Your task to perform on an android device: Show me recent news Image 0: 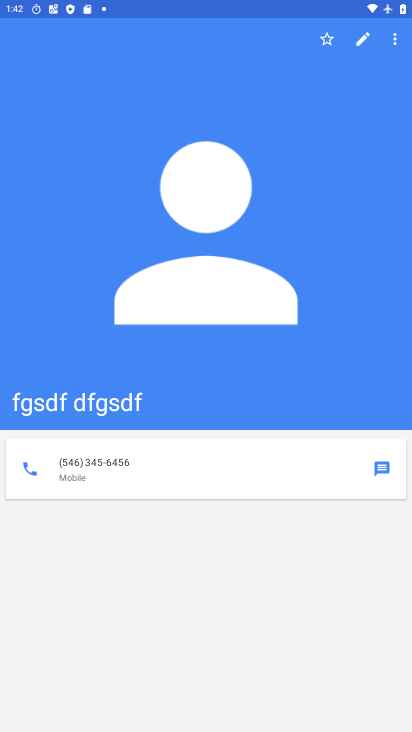
Step 0: press home button
Your task to perform on an android device: Show me recent news Image 1: 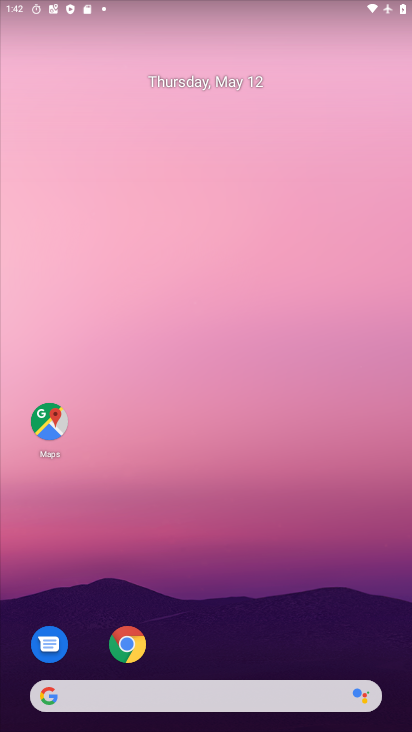
Step 1: drag from (232, 615) to (222, 51)
Your task to perform on an android device: Show me recent news Image 2: 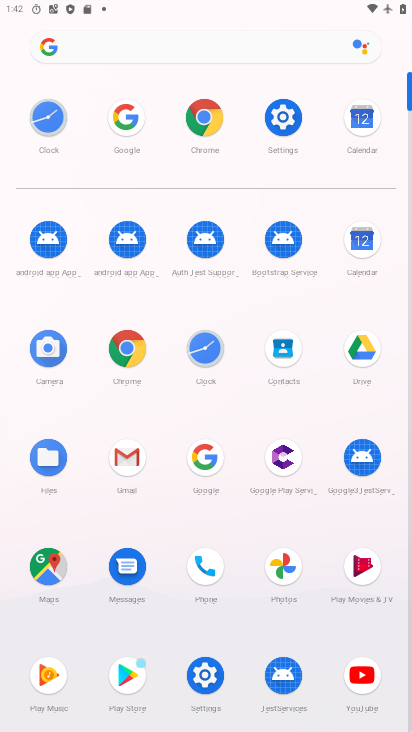
Step 2: click (201, 459)
Your task to perform on an android device: Show me recent news Image 3: 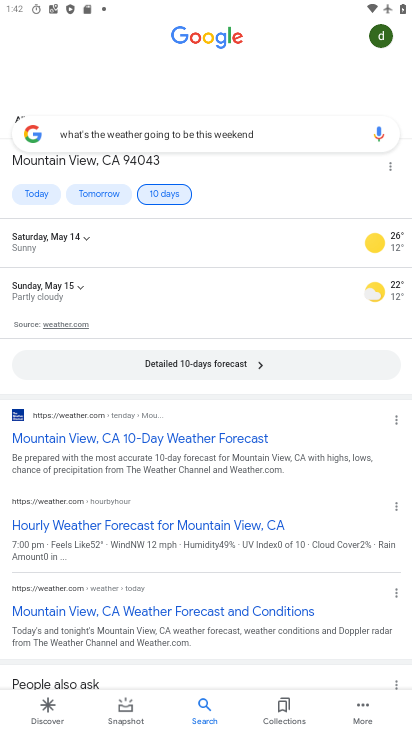
Step 3: click (267, 127)
Your task to perform on an android device: Show me recent news Image 4: 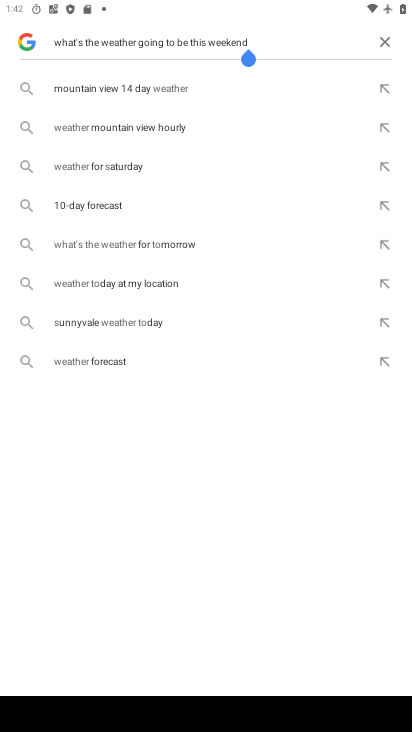
Step 4: click (380, 43)
Your task to perform on an android device: Show me recent news Image 5: 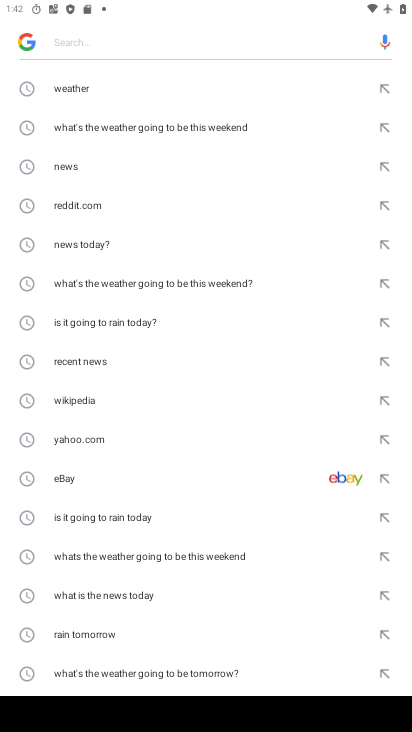
Step 5: click (83, 353)
Your task to perform on an android device: Show me recent news Image 6: 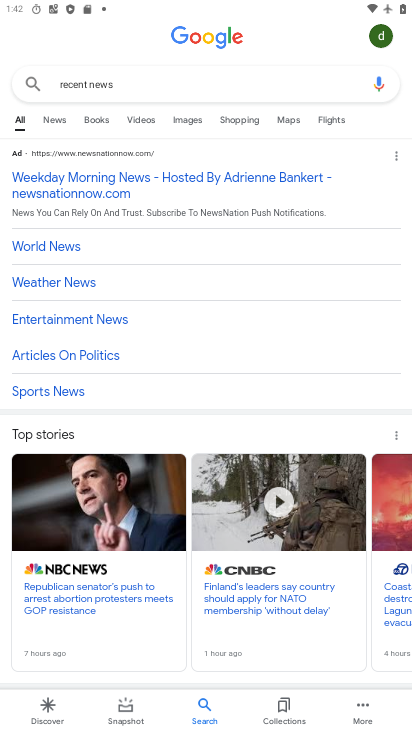
Step 6: task complete